Your task to perform on an android device: empty trash in google photos Image 0: 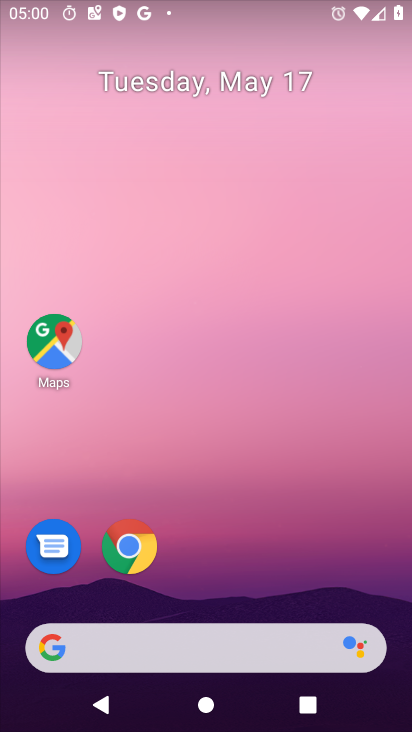
Step 0: drag from (368, 553) to (332, 285)
Your task to perform on an android device: empty trash in google photos Image 1: 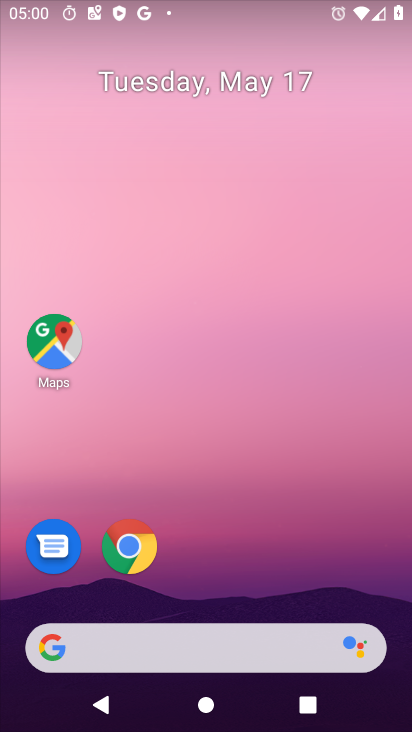
Step 1: drag from (396, 623) to (368, 91)
Your task to perform on an android device: empty trash in google photos Image 2: 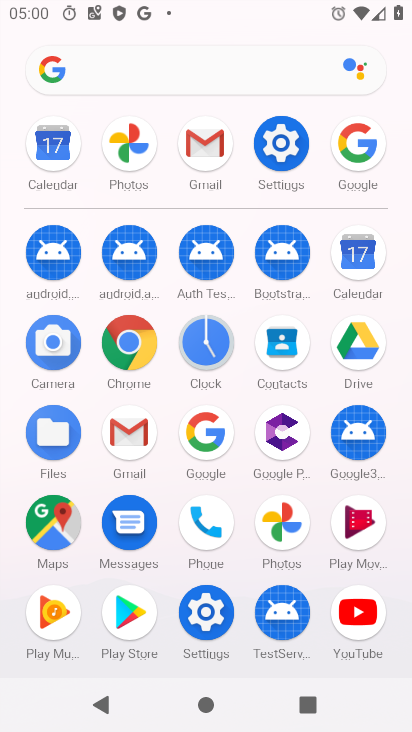
Step 2: click (286, 524)
Your task to perform on an android device: empty trash in google photos Image 3: 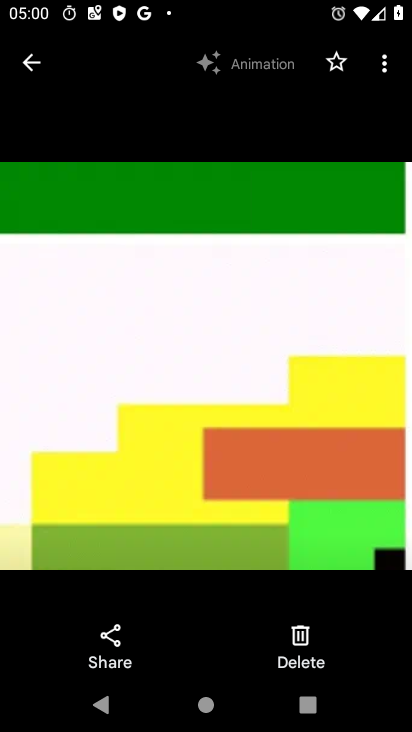
Step 3: click (40, 66)
Your task to perform on an android device: empty trash in google photos Image 4: 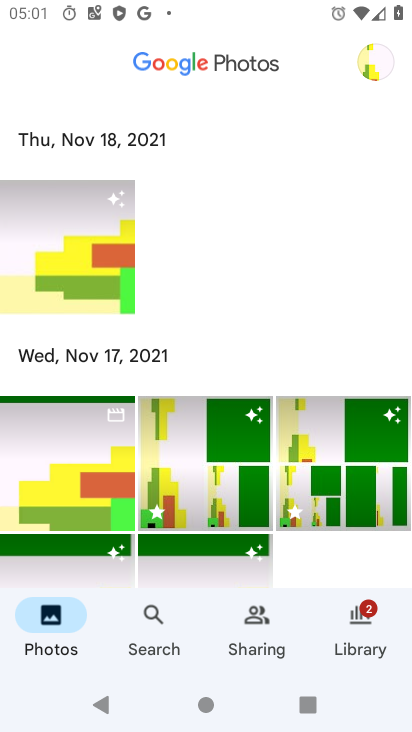
Step 4: task complete